Your task to perform on an android device: all mails in gmail Image 0: 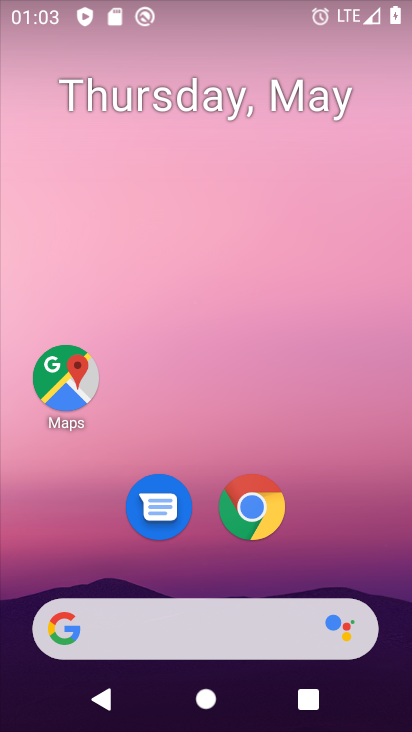
Step 0: drag from (208, 559) to (210, 254)
Your task to perform on an android device: all mails in gmail Image 1: 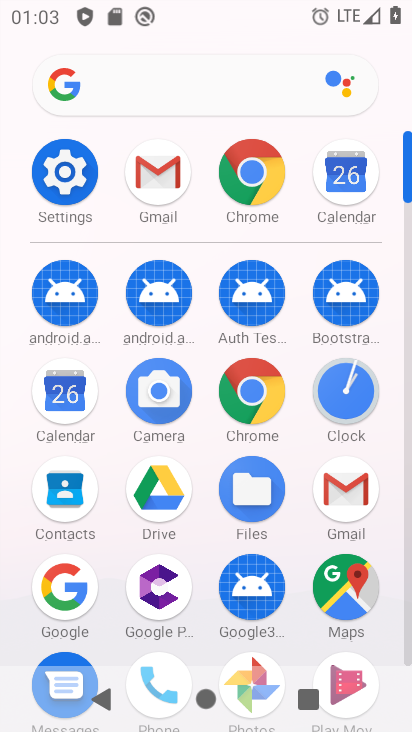
Step 1: click (138, 207)
Your task to perform on an android device: all mails in gmail Image 2: 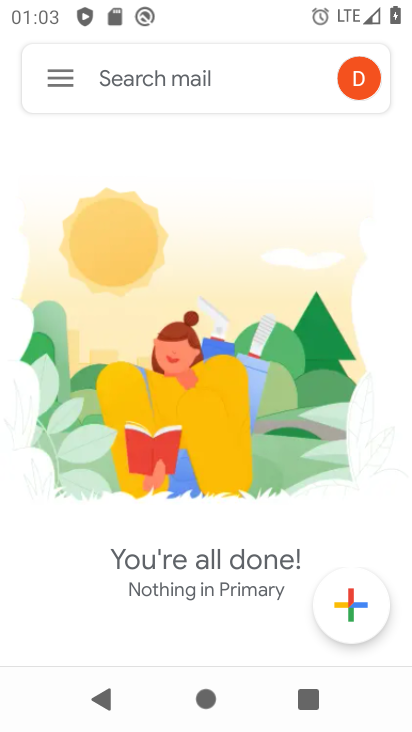
Step 2: click (56, 95)
Your task to perform on an android device: all mails in gmail Image 3: 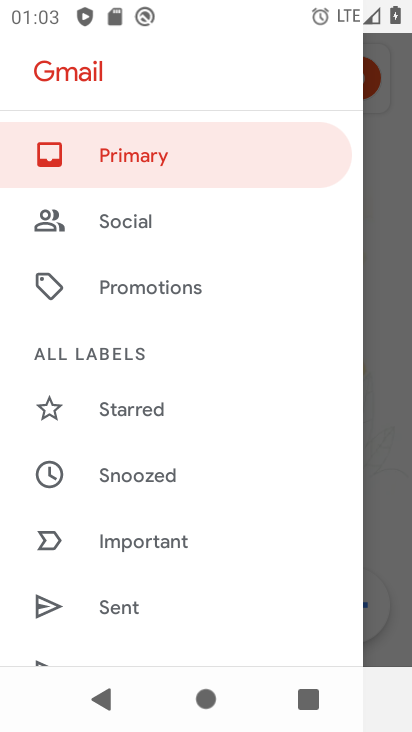
Step 3: drag from (169, 554) to (197, 264)
Your task to perform on an android device: all mails in gmail Image 4: 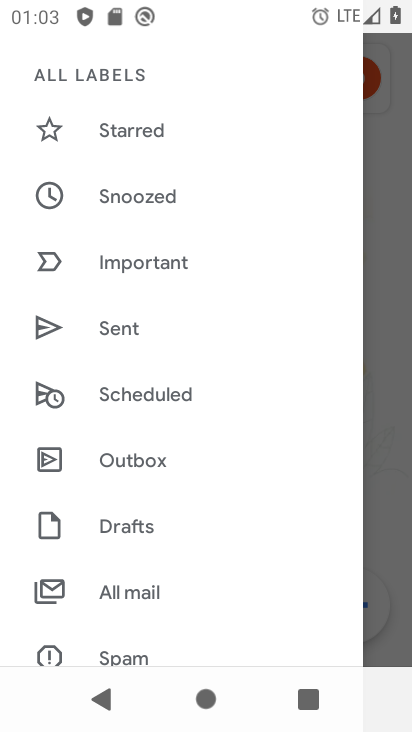
Step 4: click (144, 575)
Your task to perform on an android device: all mails in gmail Image 5: 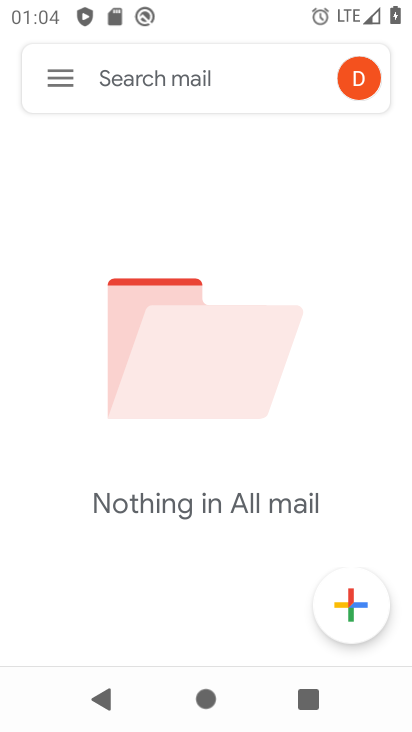
Step 5: task complete